Your task to perform on an android device: Search for pizza restaurants on Maps Image 0: 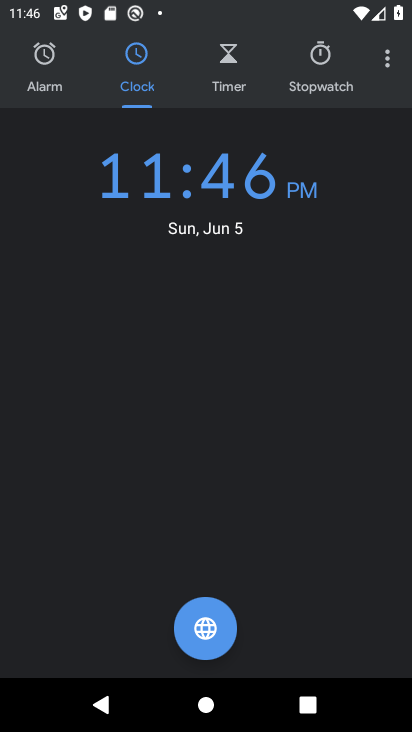
Step 0: press home button
Your task to perform on an android device: Search for pizza restaurants on Maps Image 1: 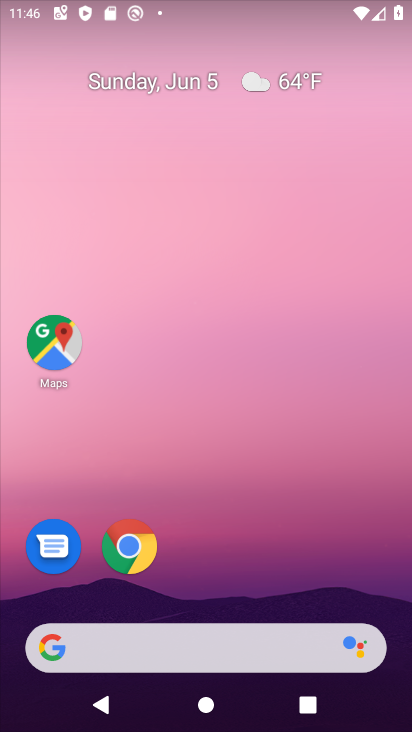
Step 1: click (60, 322)
Your task to perform on an android device: Search for pizza restaurants on Maps Image 2: 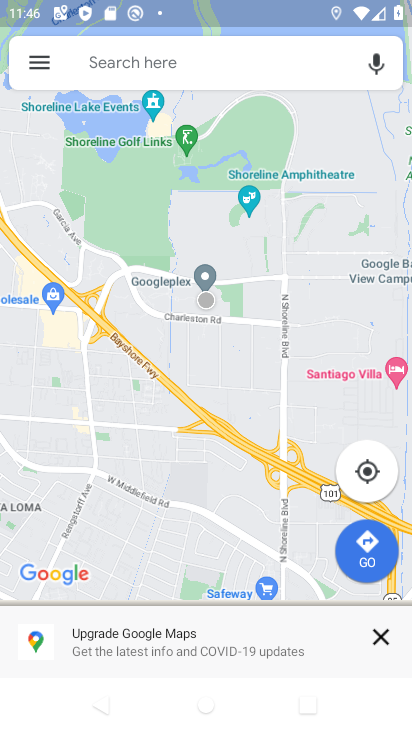
Step 2: click (220, 45)
Your task to perform on an android device: Search for pizza restaurants on Maps Image 3: 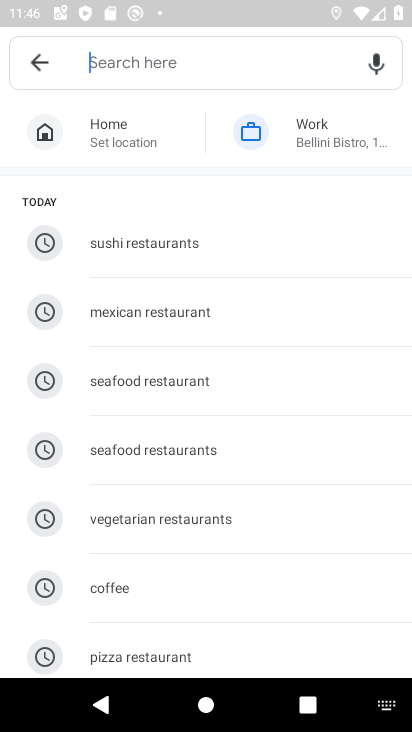
Step 3: click (193, 52)
Your task to perform on an android device: Search for pizza restaurants on Maps Image 4: 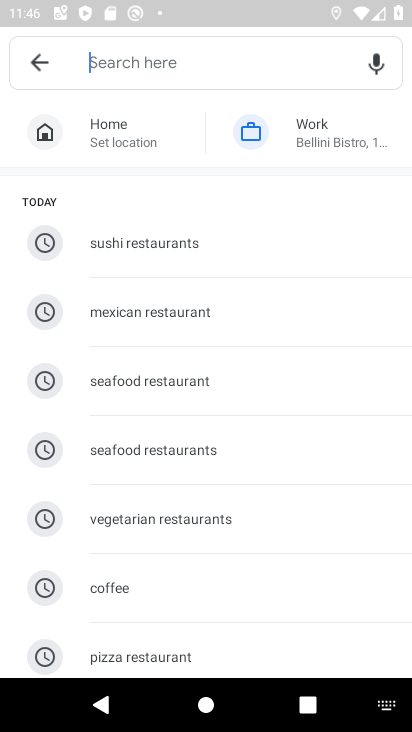
Step 4: type " pizza restaurants"
Your task to perform on an android device: Search for pizza restaurants on Maps Image 5: 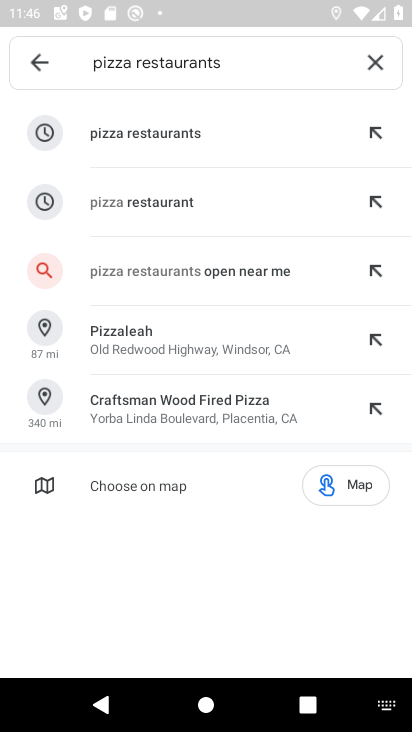
Step 5: click (209, 122)
Your task to perform on an android device: Search for pizza restaurants on Maps Image 6: 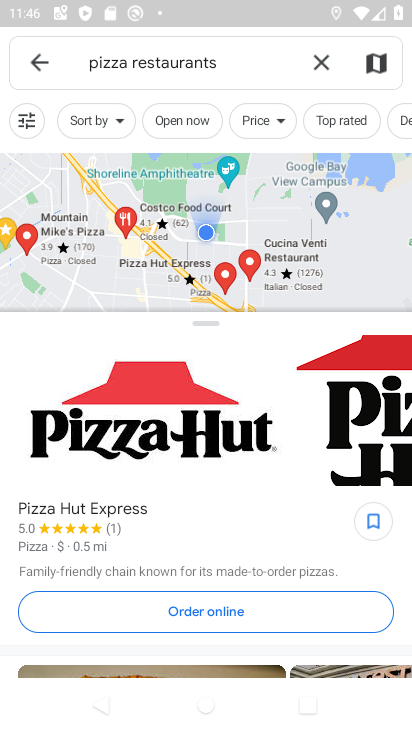
Step 6: task complete